Your task to perform on an android device: change timer sound Image 0: 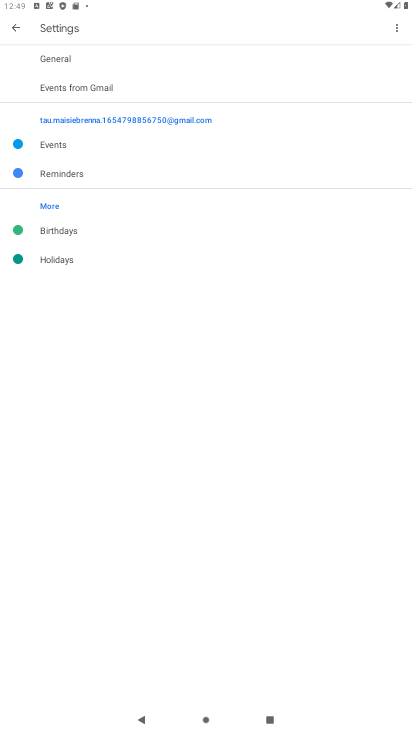
Step 0: press home button
Your task to perform on an android device: change timer sound Image 1: 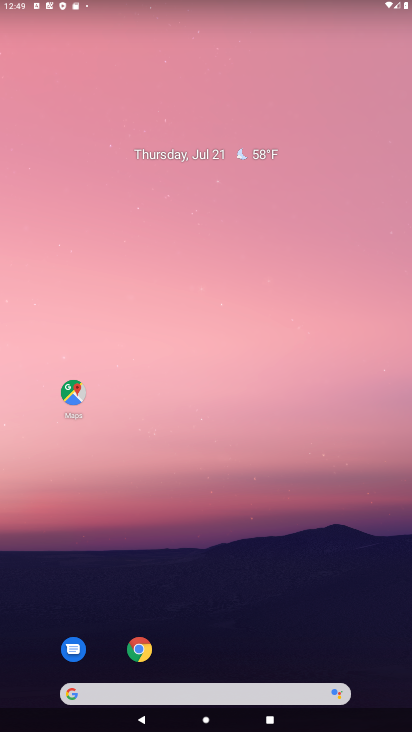
Step 1: drag from (386, 659) to (334, 131)
Your task to perform on an android device: change timer sound Image 2: 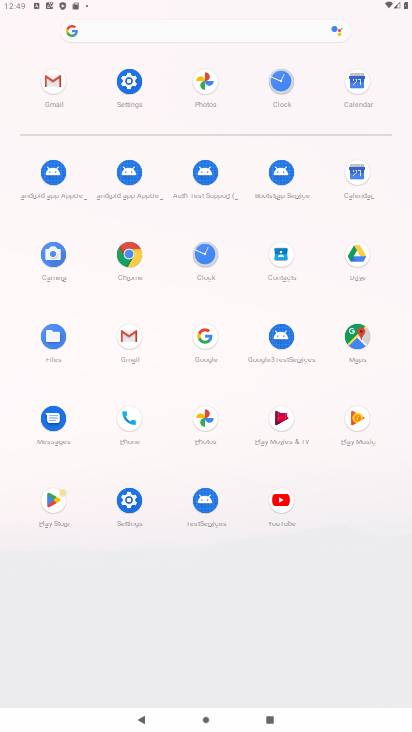
Step 2: click (205, 258)
Your task to perform on an android device: change timer sound Image 3: 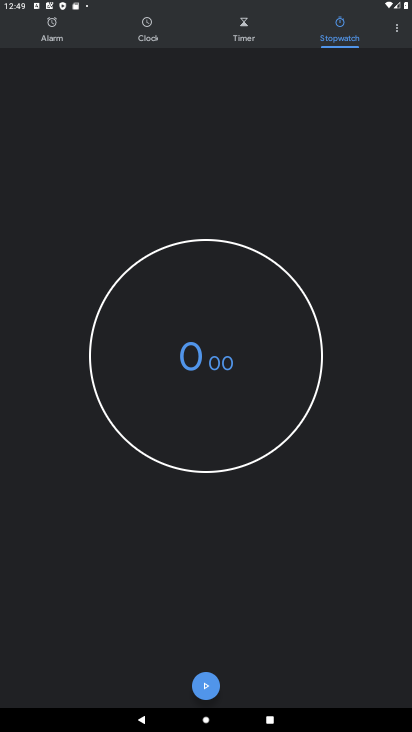
Step 3: click (398, 36)
Your task to perform on an android device: change timer sound Image 4: 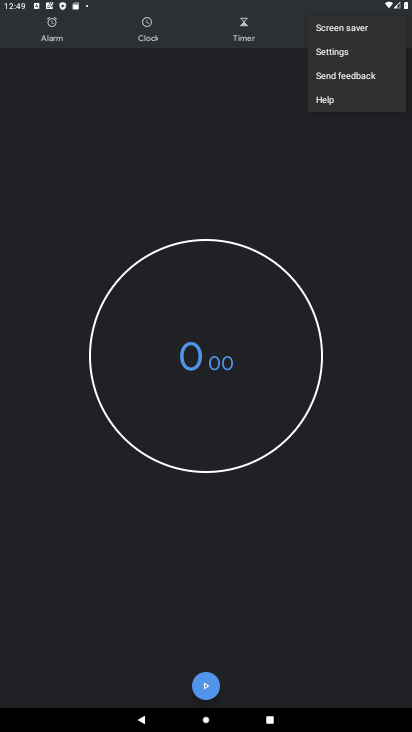
Step 4: click (327, 55)
Your task to perform on an android device: change timer sound Image 5: 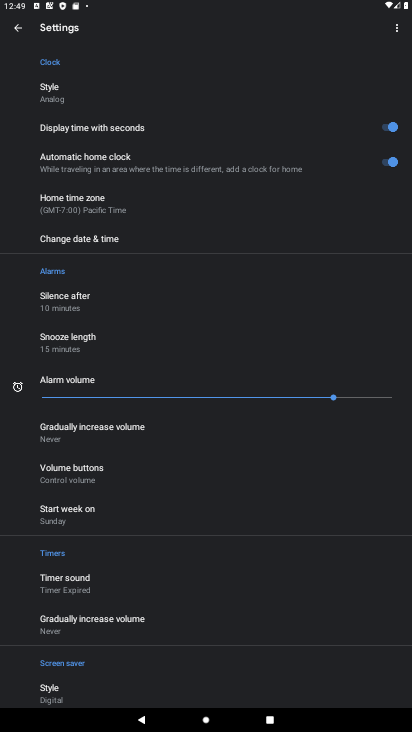
Step 5: click (65, 580)
Your task to perform on an android device: change timer sound Image 6: 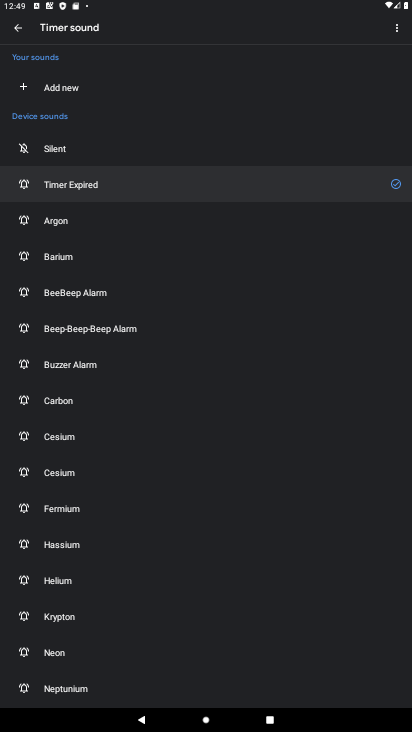
Step 6: click (64, 363)
Your task to perform on an android device: change timer sound Image 7: 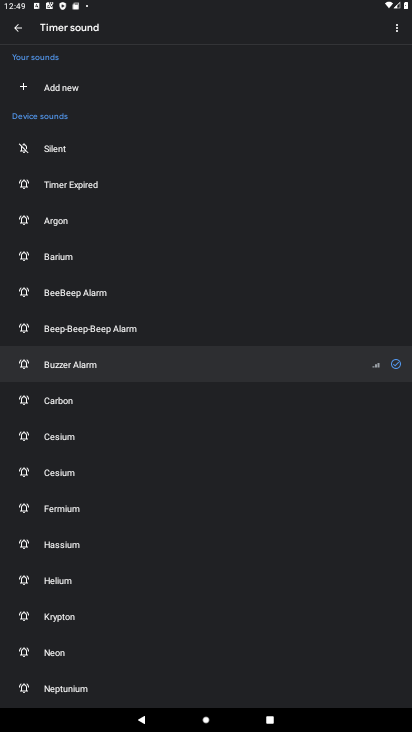
Step 7: task complete